Your task to perform on an android device: change the clock display to digital Image 0: 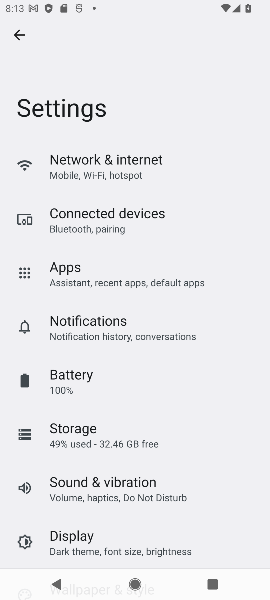
Step 0: press home button
Your task to perform on an android device: change the clock display to digital Image 1: 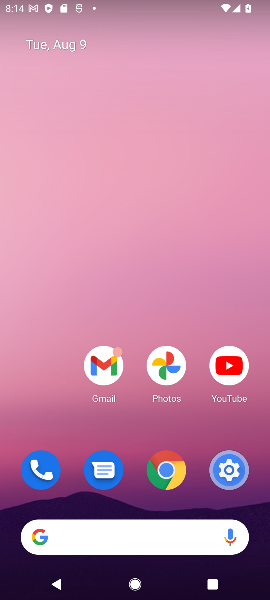
Step 1: drag from (137, 468) to (193, 21)
Your task to perform on an android device: change the clock display to digital Image 2: 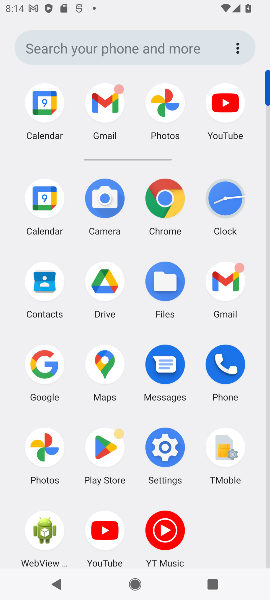
Step 2: click (227, 195)
Your task to perform on an android device: change the clock display to digital Image 3: 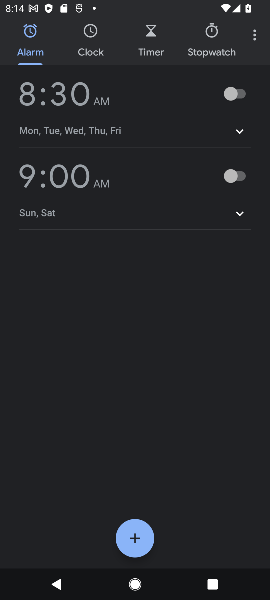
Step 3: click (248, 35)
Your task to perform on an android device: change the clock display to digital Image 4: 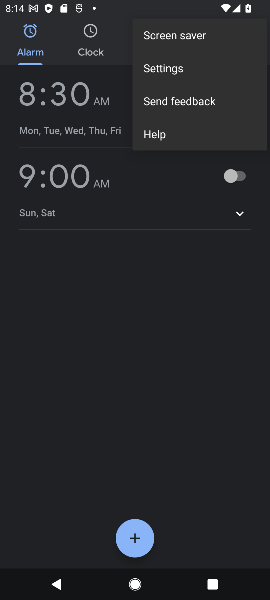
Step 4: click (182, 70)
Your task to perform on an android device: change the clock display to digital Image 5: 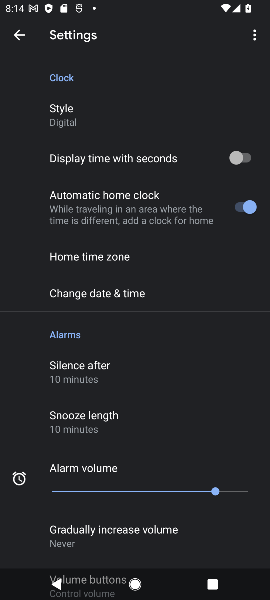
Step 5: click (103, 117)
Your task to perform on an android device: change the clock display to digital Image 6: 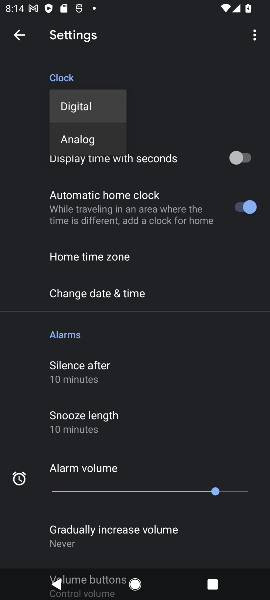
Step 6: task complete